Your task to perform on an android device: Is it going to rain tomorrow? Image 0: 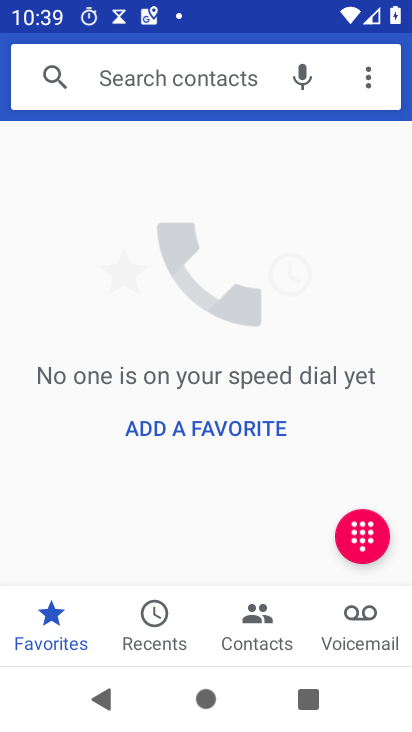
Step 0: press back button
Your task to perform on an android device: Is it going to rain tomorrow? Image 1: 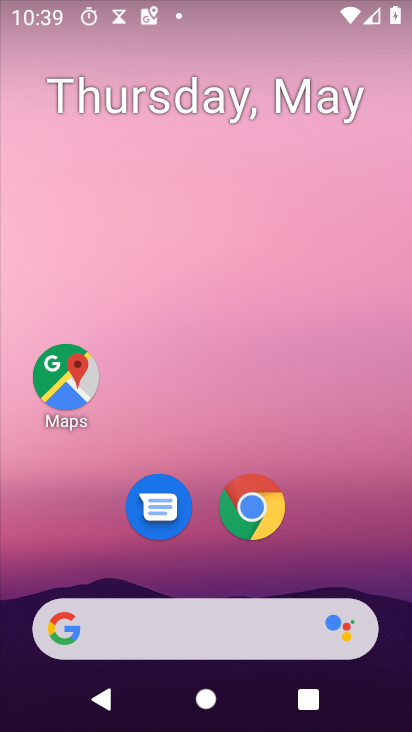
Step 1: drag from (331, 494) to (270, 35)
Your task to perform on an android device: Is it going to rain tomorrow? Image 2: 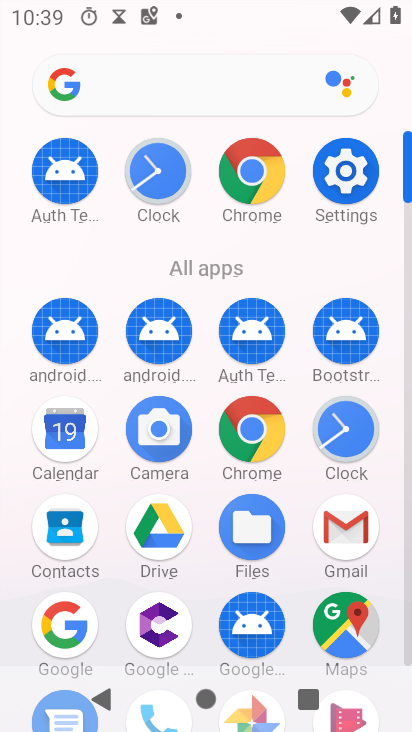
Step 2: drag from (10, 519) to (10, 229)
Your task to perform on an android device: Is it going to rain tomorrow? Image 3: 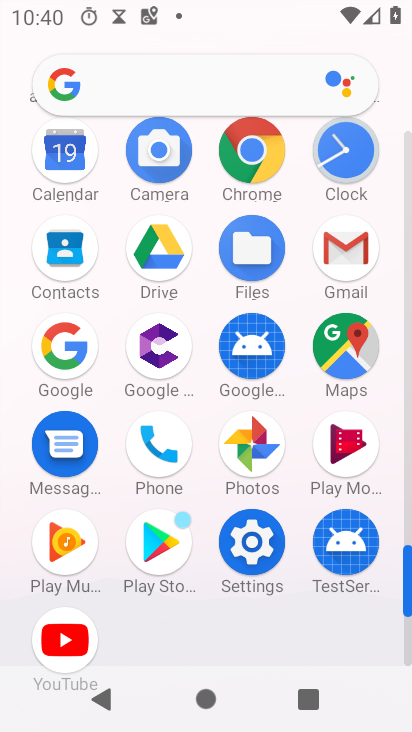
Step 3: click (255, 145)
Your task to perform on an android device: Is it going to rain tomorrow? Image 4: 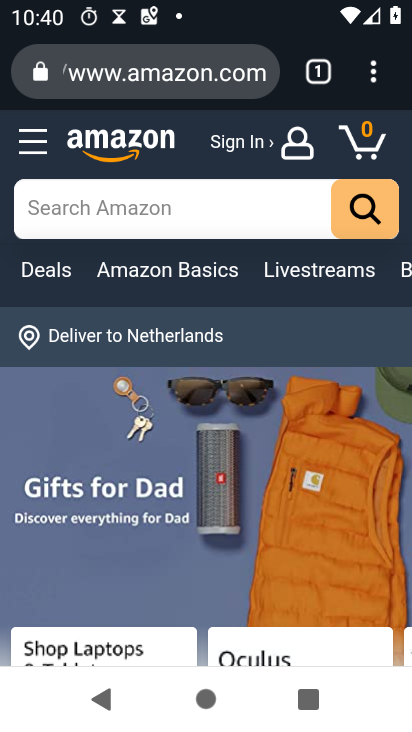
Step 4: click (144, 75)
Your task to perform on an android device: Is it going to rain tomorrow? Image 5: 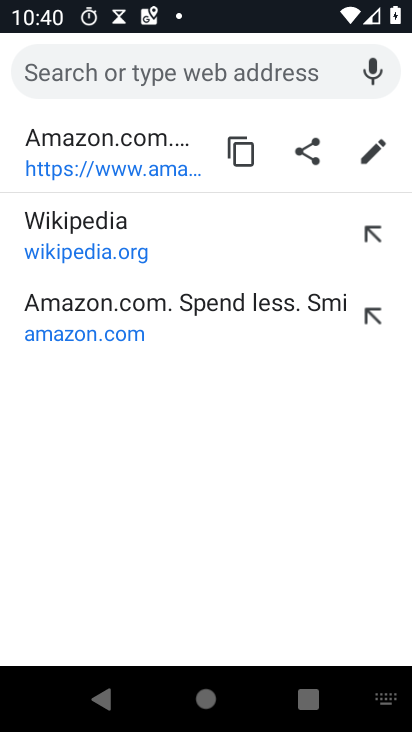
Step 5: type "Is it going to rain tomorrow?"
Your task to perform on an android device: Is it going to rain tomorrow? Image 6: 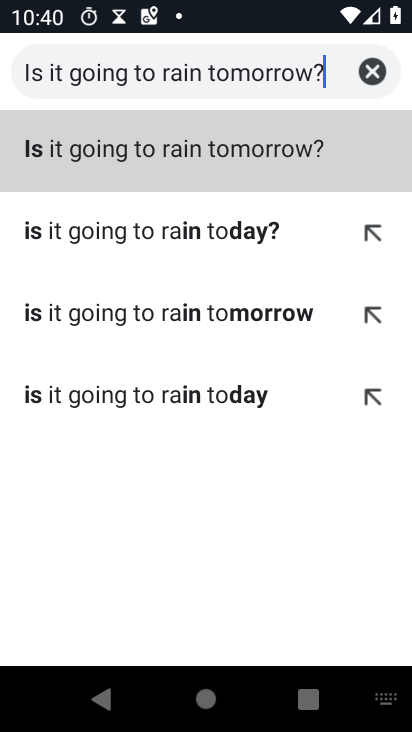
Step 6: type ""
Your task to perform on an android device: Is it going to rain tomorrow? Image 7: 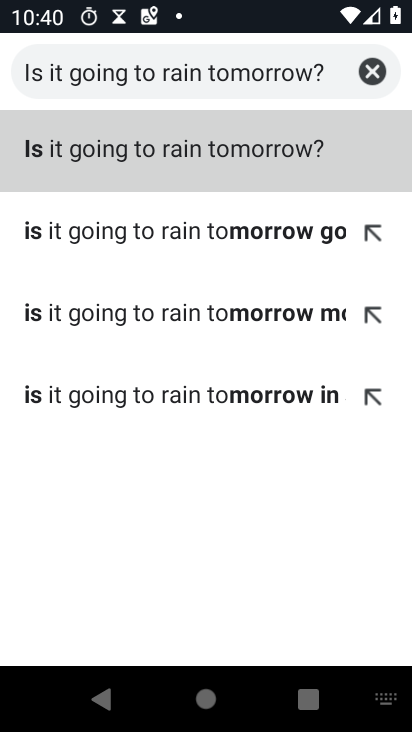
Step 7: click (207, 141)
Your task to perform on an android device: Is it going to rain tomorrow? Image 8: 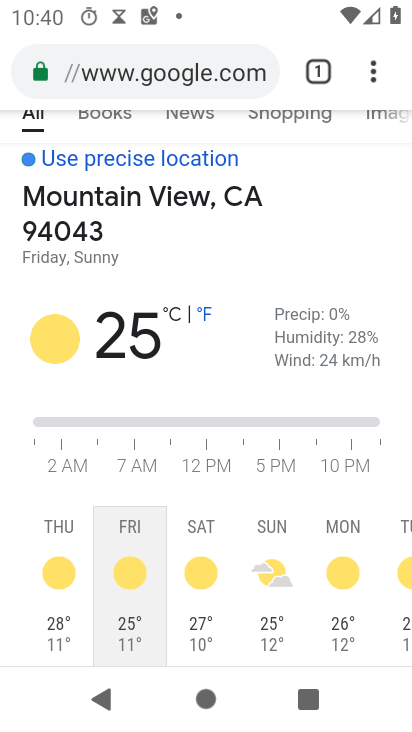
Step 8: task complete